Your task to perform on an android device: Open internet settings Image 0: 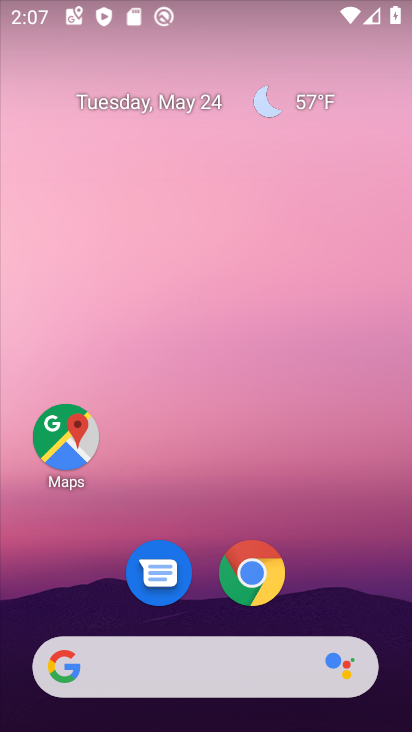
Step 0: drag from (359, 574) to (312, 212)
Your task to perform on an android device: Open internet settings Image 1: 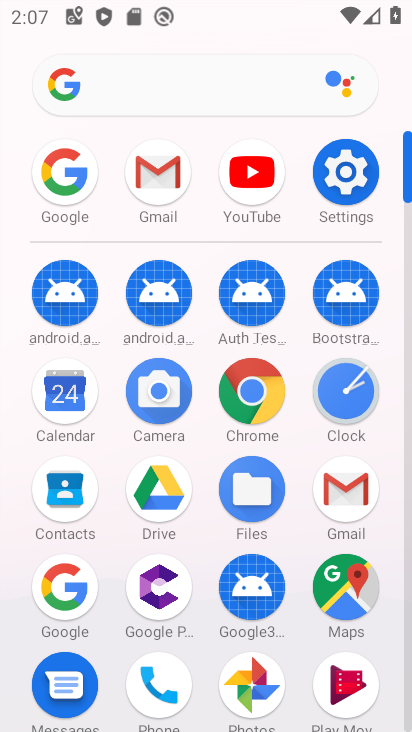
Step 1: click (356, 173)
Your task to perform on an android device: Open internet settings Image 2: 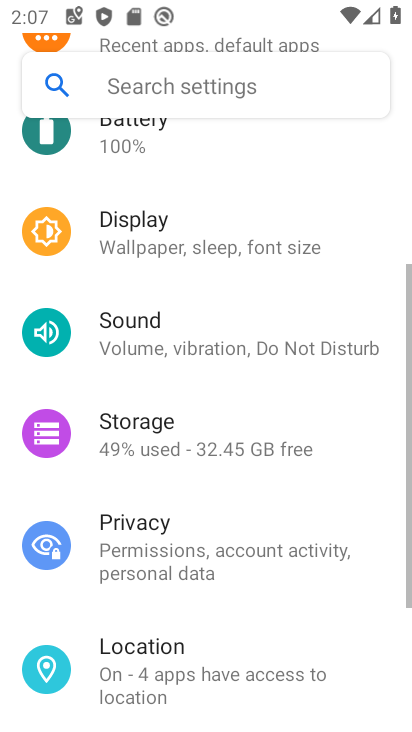
Step 2: drag from (152, 176) to (269, 722)
Your task to perform on an android device: Open internet settings Image 3: 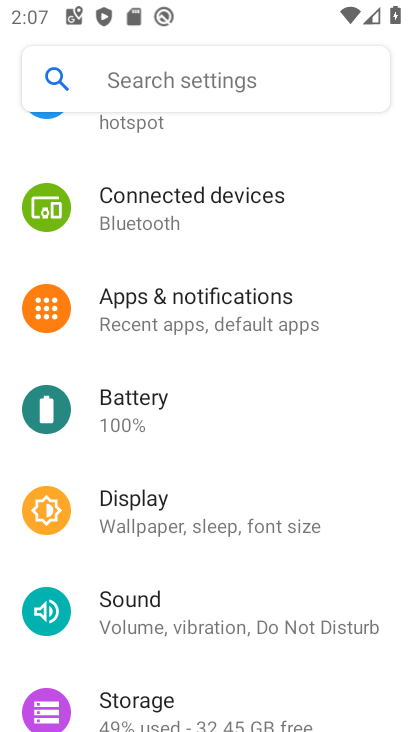
Step 3: drag from (294, 472) to (282, 725)
Your task to perform on an android device: Open internet settings Image 4: 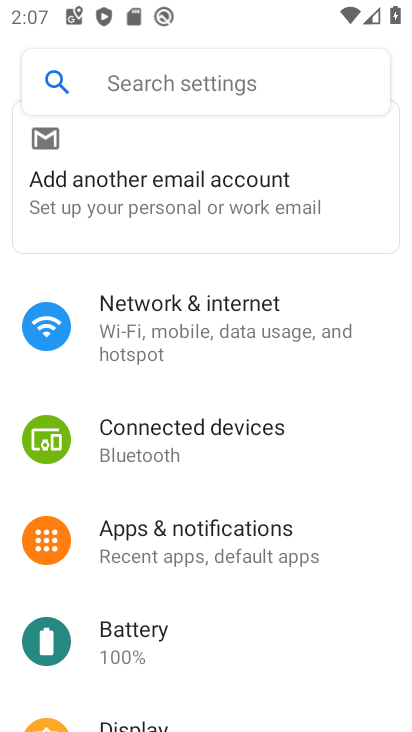
Step 4: click (144, 334)
Your task to perform on an android device: Open internet settings Image 5: 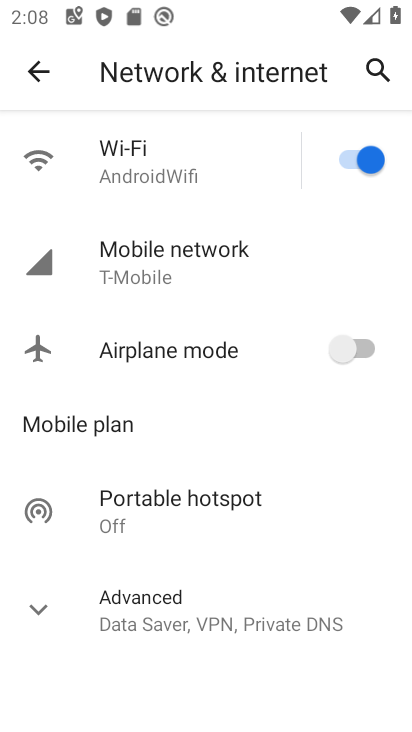
Step 5: task complete